Your task to perform on an android device: Go to Yahoo.com Image 0: 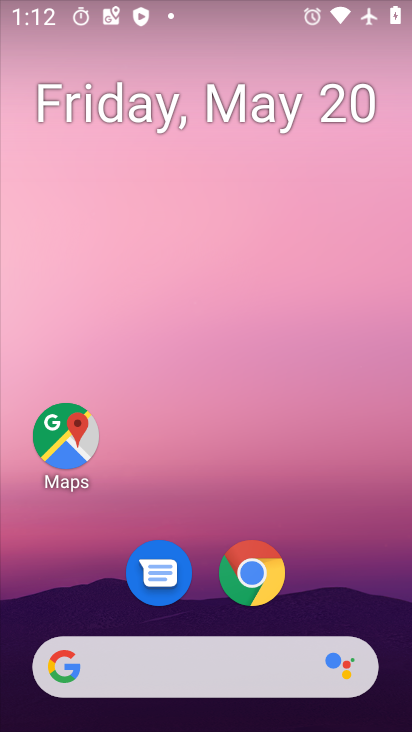
Step 0: click (253, 567)
Your task to perform on an android device: Go to Yahoo.com Image 1: 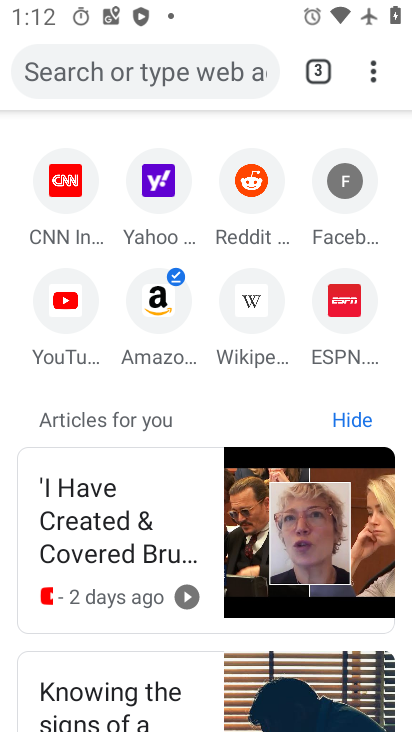
Step 1: click (160, 175)
Your task to perform on an android device: Go to Yahoo.com Image 2: 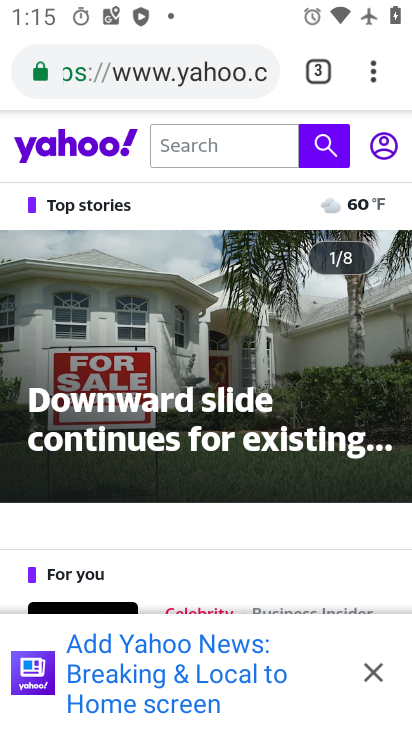
Step 2: task complete